Your task to perform on an android device: check google app version Image 0: 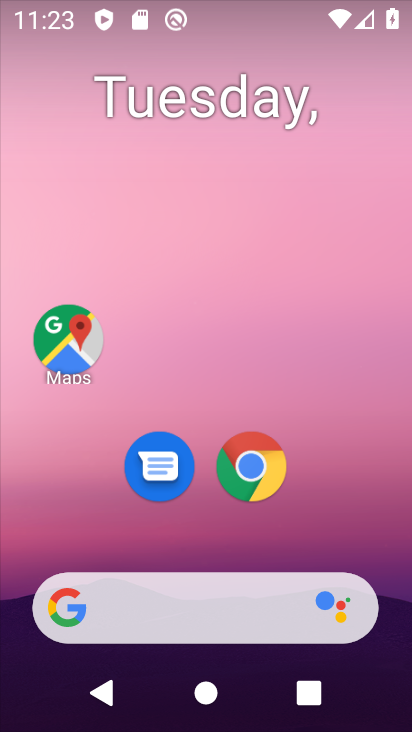
Step 0: drag from (225, 561) to (190, 15)
Your task to perform on an android device: check google app version Image 1: 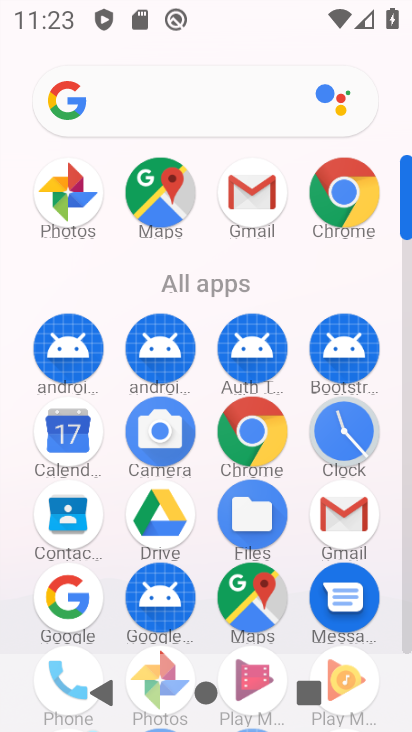
Step 1: click (82, 592)
Your task to perform on an android device: check google app version Image 2: 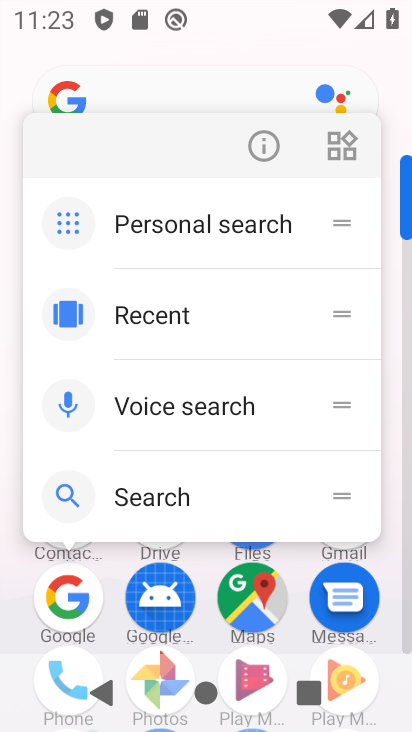
Step 2: click (245, 150)
Your task to perform on an android device: check google app version Image 3: 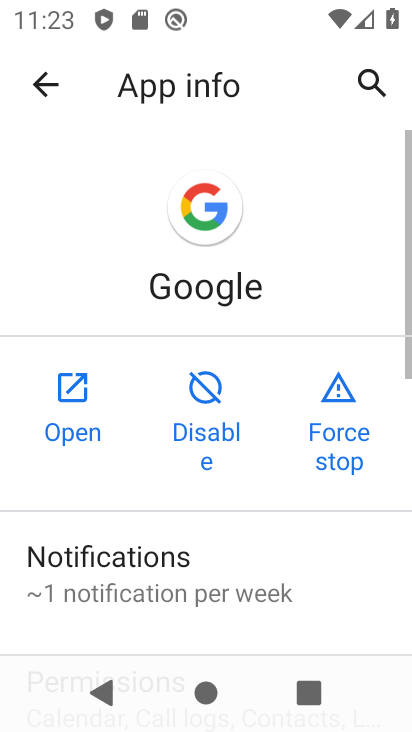
Step 3: drag from (206, 493) to (152, 3)
Your task to perform on an android device: check google app version Image 4: 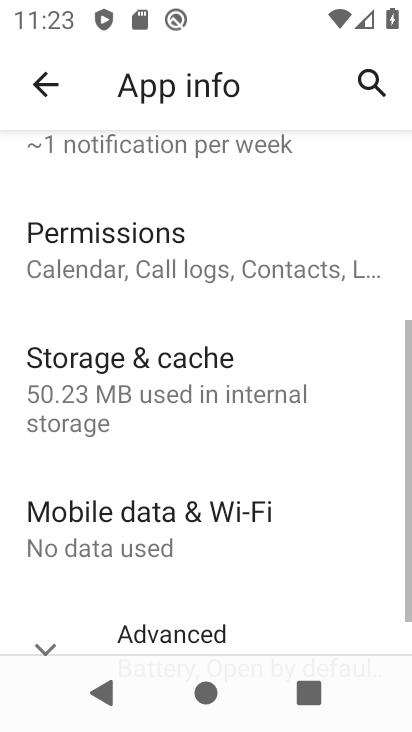
Step 4: drag from (175, 531) to (85, 98)
Your task to perform on an android device: check google app version Image 5: 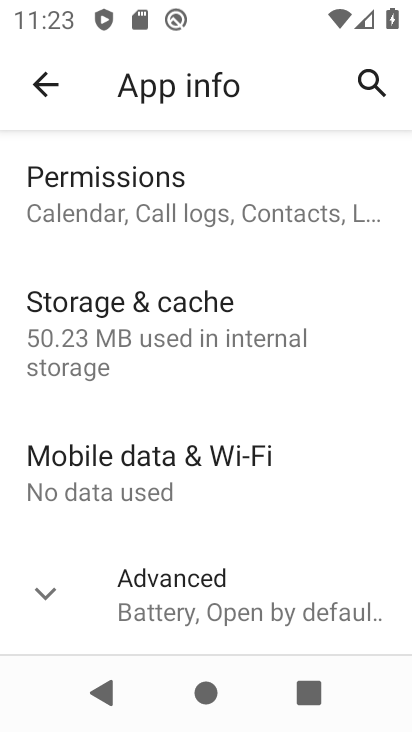
Step 5: click (158, 571)
Your task to perform on an android device: check google app version Image 6: 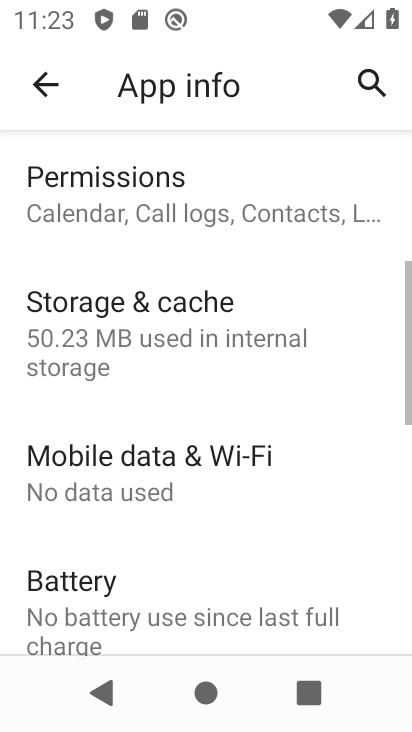
Step 6: task complete